Your task to perform on an android device: stop showing notifications on the lock screen Image 0: 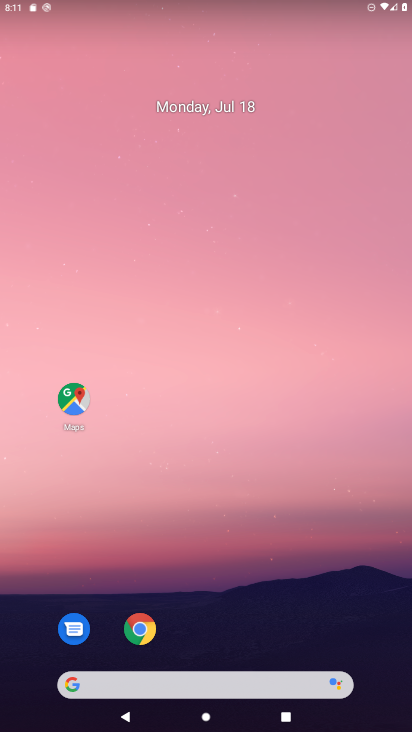
Step 0: drag from (197, 611) to (284, 17)
Your task to perform on an android device: stop showing notifications on the lock screen Image 1: 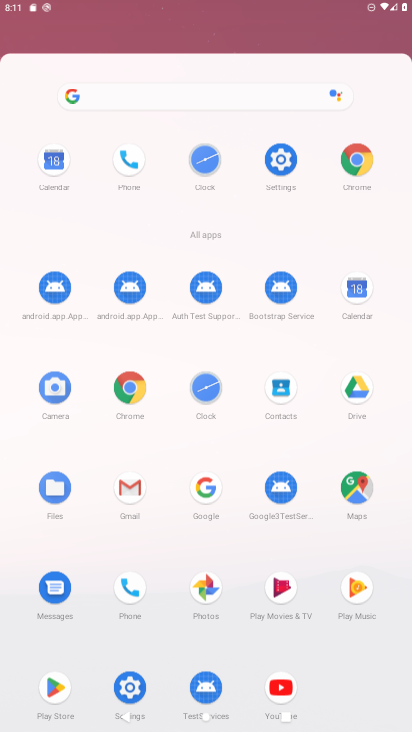
Step 1: click (262, 133)
Your task to perform on an android device: stop showing notifications on the lock screen Image 2: 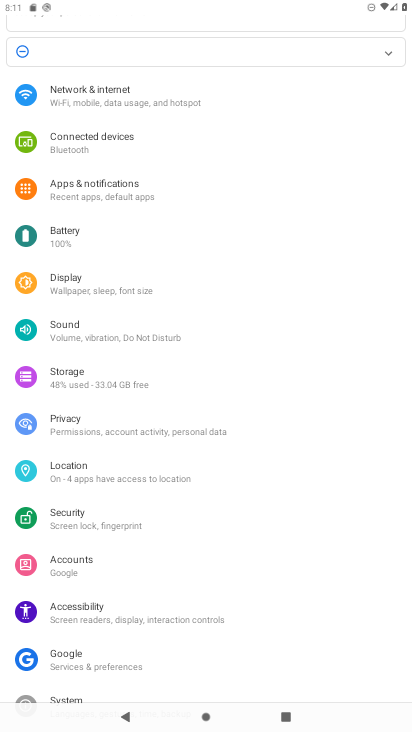
Step 2: click (127, 178)
Your task to perform on an android device: stop showing notifications on the lock screen Image 3: 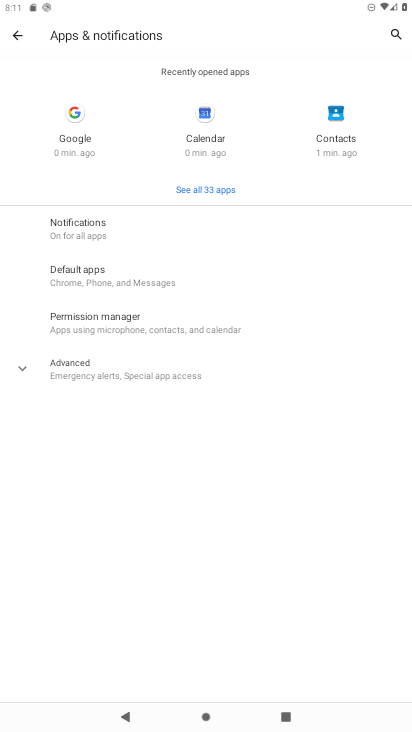
Step 3: click (96, 367)
Your task to perform on an android device: stop showing notifications on the lock screen Image 4: 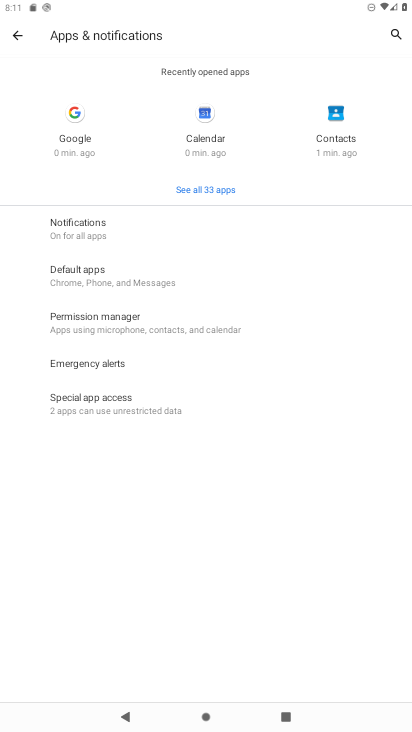
Step 4: click (112, 226)
Your task to perform on an android device: stop showing notifications on the lock screen Image 5: 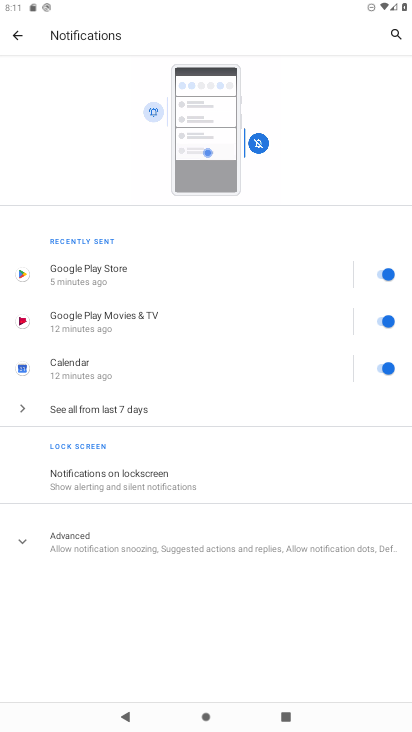
Step 5: click (128, 469)
Your task to perform on an android device: stop showing notifications on the lock screen Image 6: 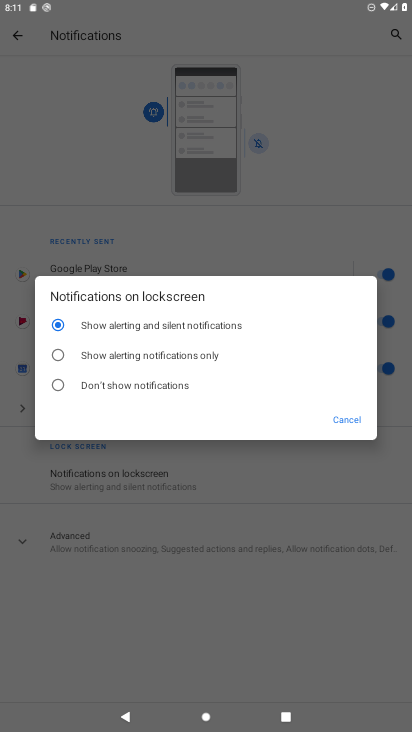
Step 6: click (63, 385)
Your task to perform on an android device: stop showing notifications on the lock screen Image 7: 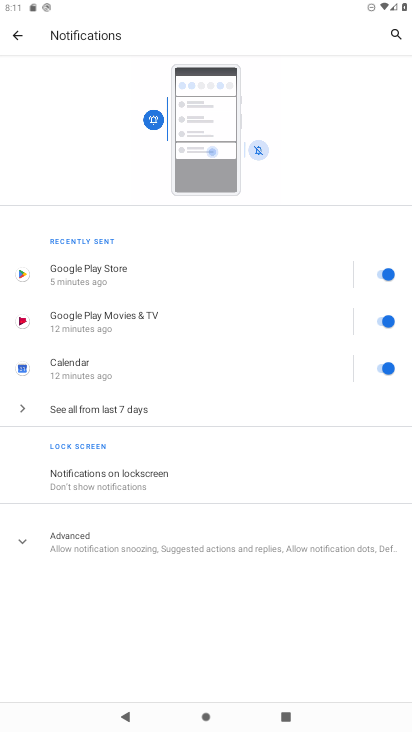
Step 7: task complete